Your task to perform on an android device: find which apps use the phone's location Image 0: 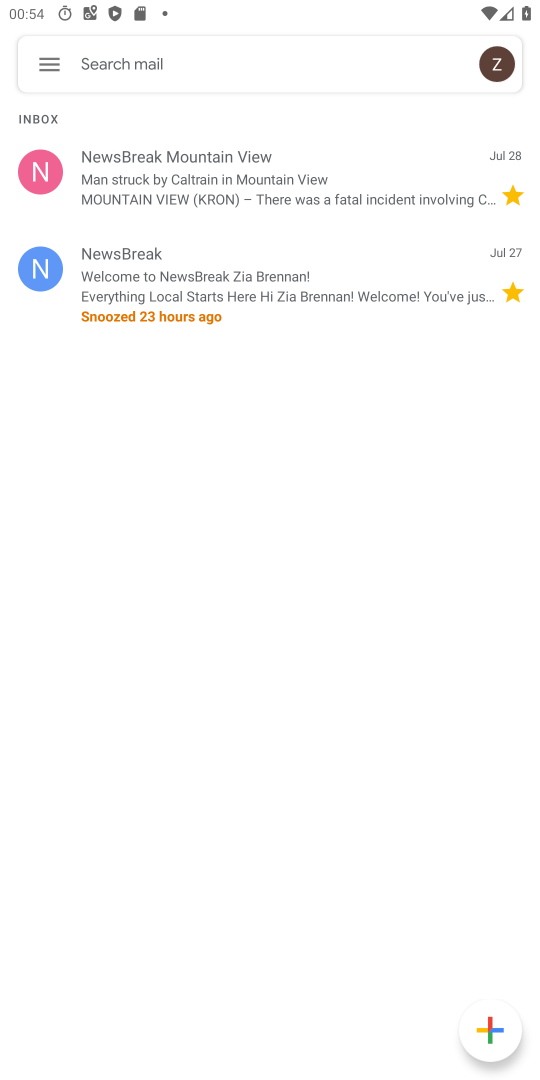
Step 0: press home button
Your task to perform on an android device: find which apps use the phone's location Image 1: 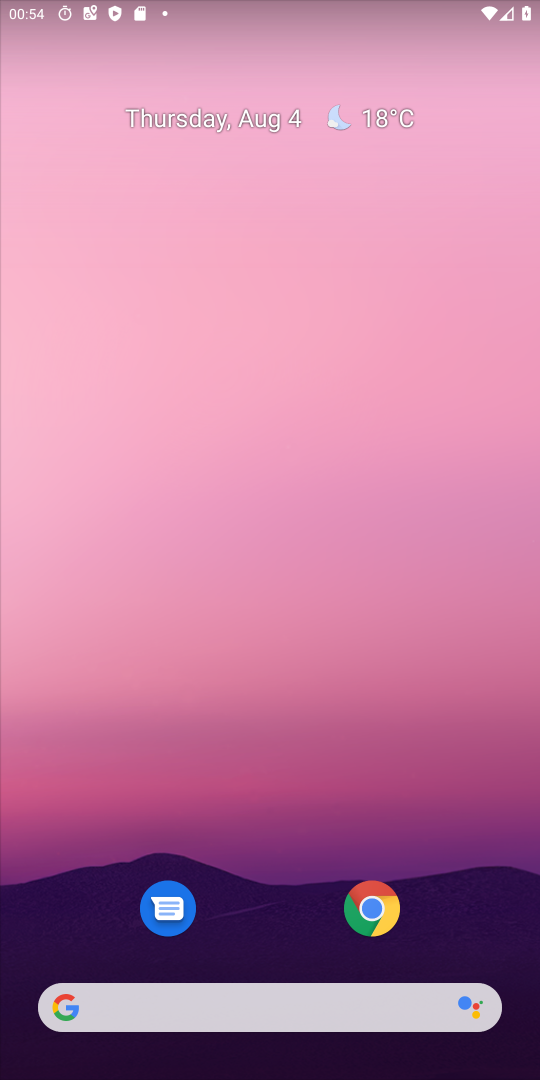
Step 1: drag from (317, 1030) to (270, 409)
Your task to perform on an android device: find which apps use the phone's location Image 2: 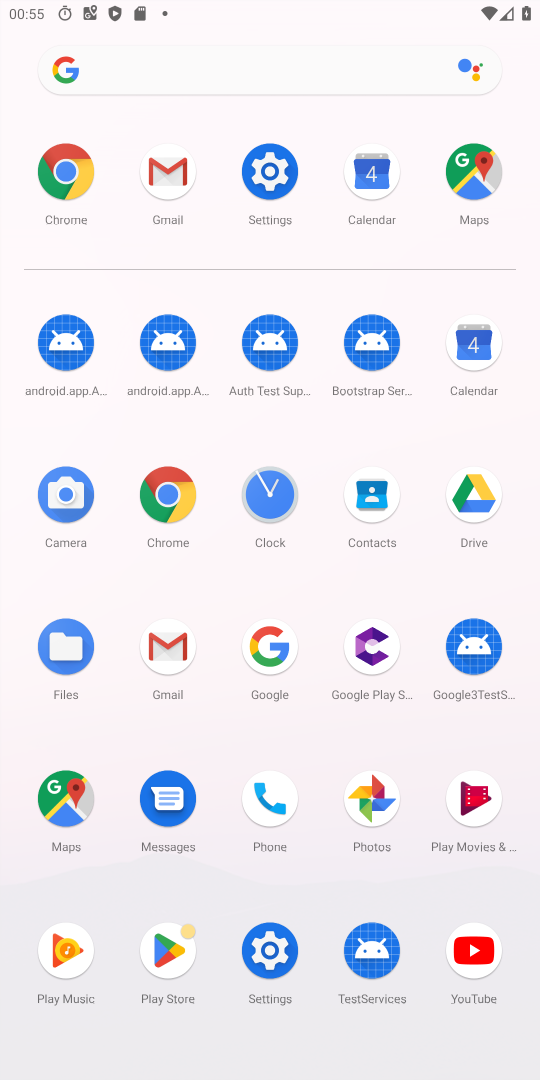
Step 2: click (245, 945)
Your task to perform on an android device: find which apps use the phone's location Image 3: 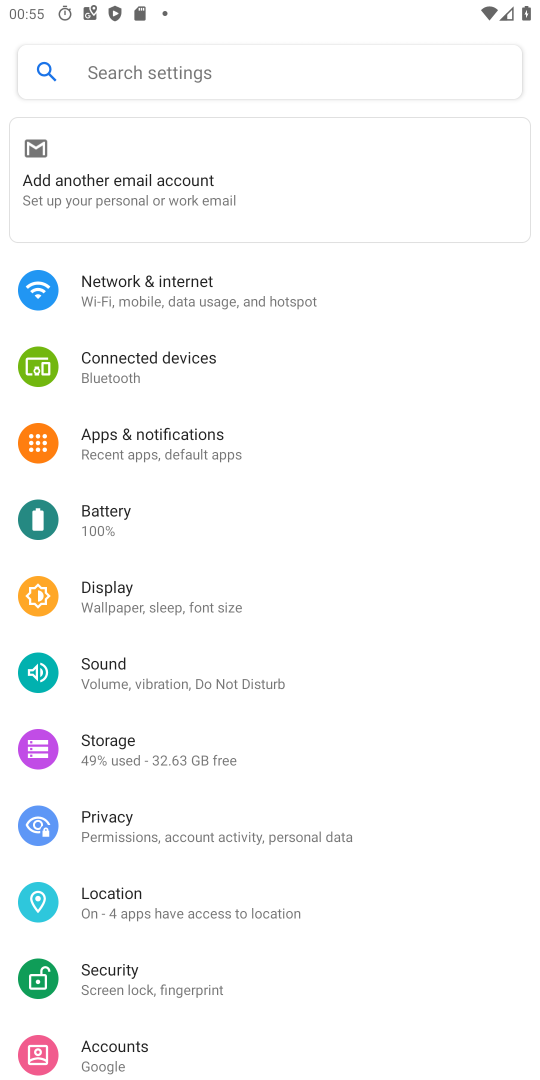
Step 3: click (139, 907)
Your task to perform on an android device: find which apps use the phone's location Image 4: 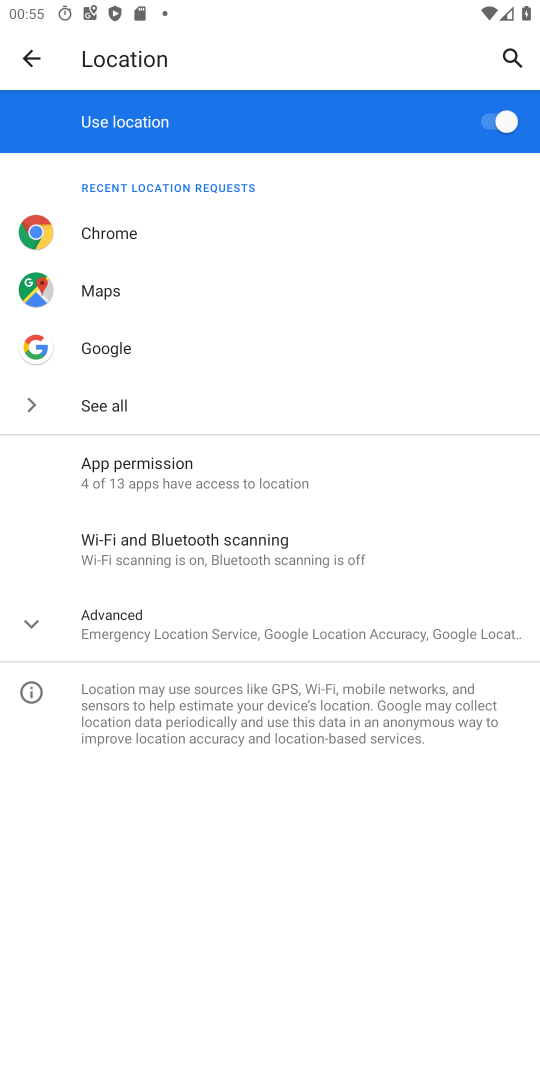
Step 4: click (48, 632)
Your task to perform on an android device: find which apps use the phone's location Image 5: 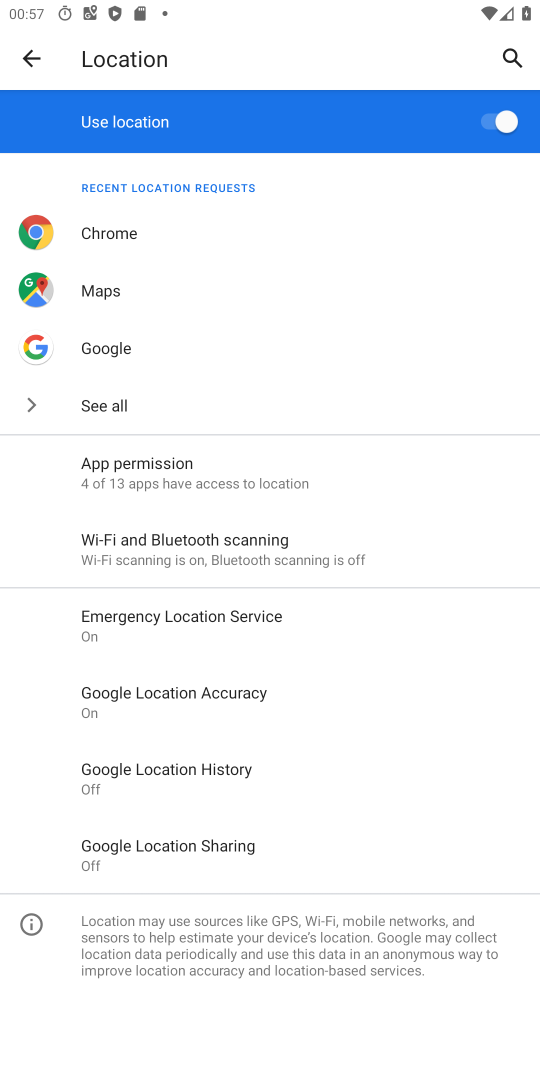
Step 5: task complete